Your task to perform on an android device: turn on data saver in the chrome app Image 0: 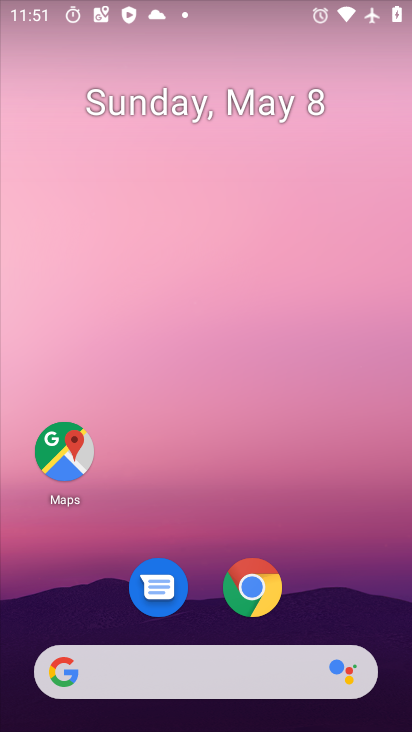
Step 0: drag from (348, 516) to (262, 194)
Your task to perform on an android device: turn on data saver in the chrome app Image 1: 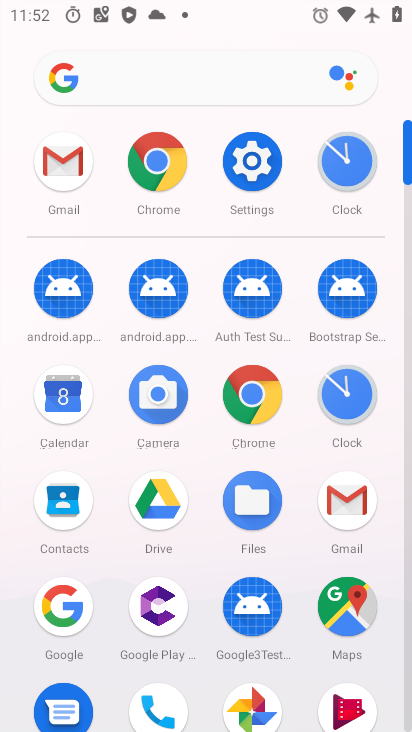
Step 1: click (153, 161)
Your task to perform on an android device: turn on data saver in the chrome app Image 2: 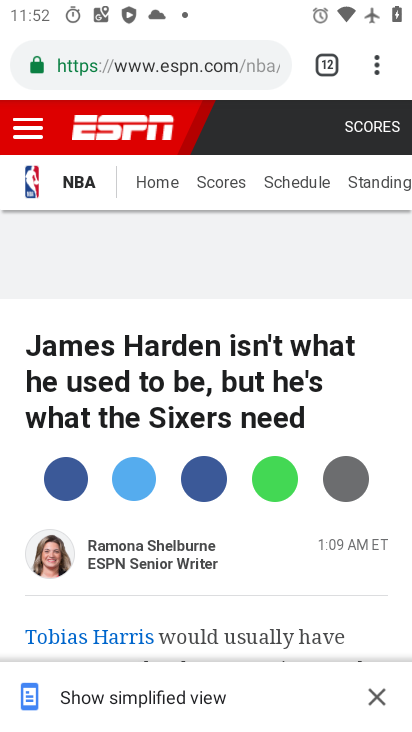
Step 2: drag from (376, 56) to (113, 629)
Your task to perform on an android device: turn on data saver in the chrome app Image 3: 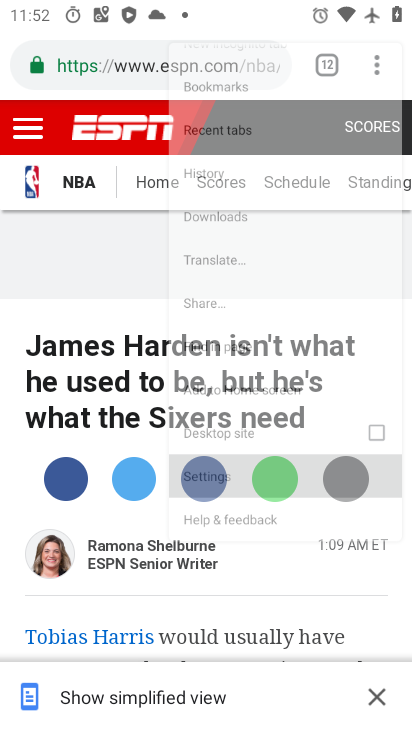
Step 3: click (104, 654)
Your task to perform on an android device: turn on data saver in the chrome app Image 4: 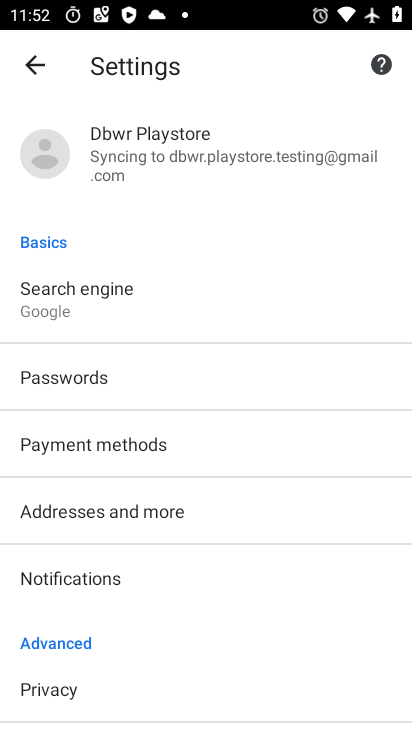
Step 4: drag from (256, 615) to (170, 153)
Your task to perform on an android device: turn on data saver in the chrome app Image 5: 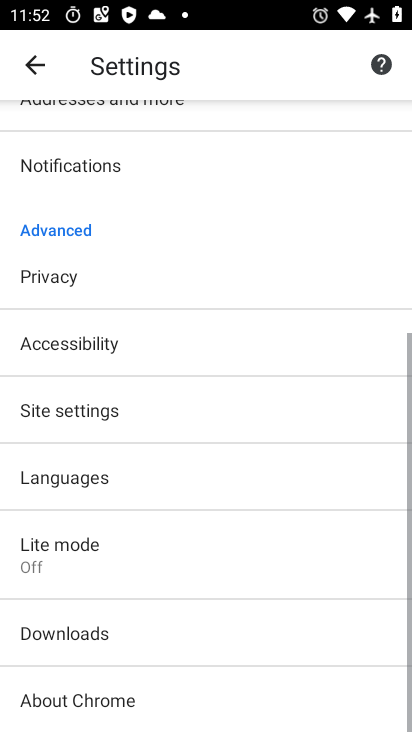
Step 5: drag from (273, 574) to (193, 244)
Your task to perform on an android device: turn on data saver in the chrome app Image 6: 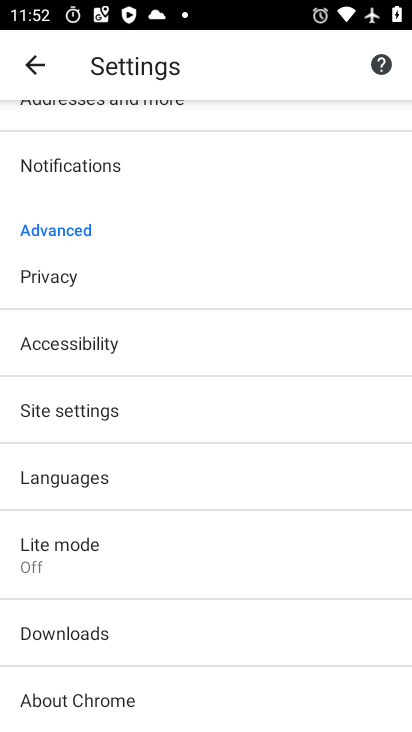
Step 6: click (54, 547)
Your task to perform on an android device: turn on data saver in the chrome app Image 7: 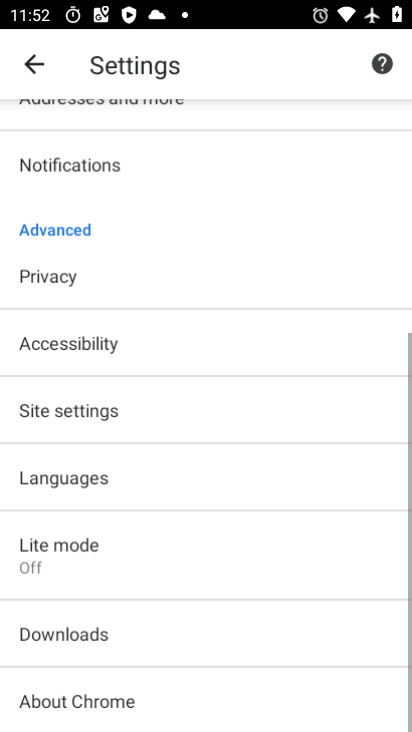
Step 7: click (54, 546)
Your task to perform on an android device: turn on data saver in the chrome app Image 8: 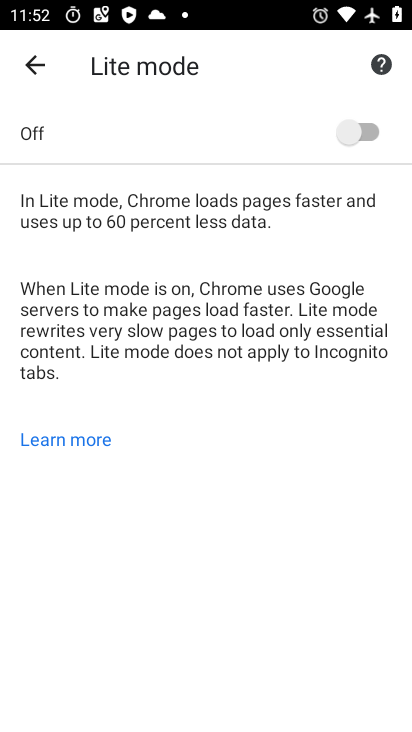
Step 8: click (345, 140)
Your task to perform on an android device: turn on data saver in the chrome app Image 9: 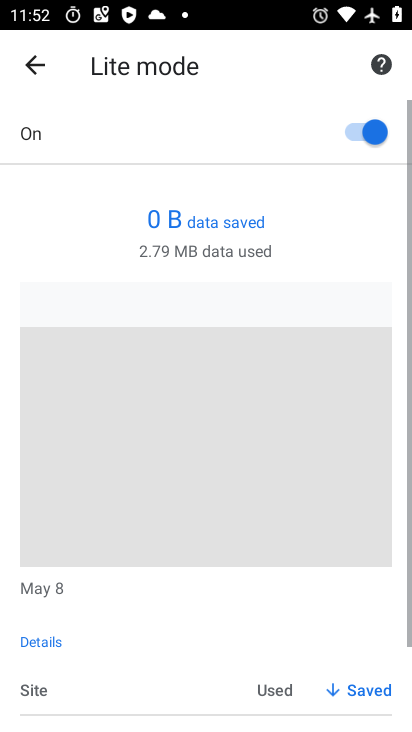
Step 9: task complete